Your task to perform on an android device: Do I have any events this weekend? Image 0: 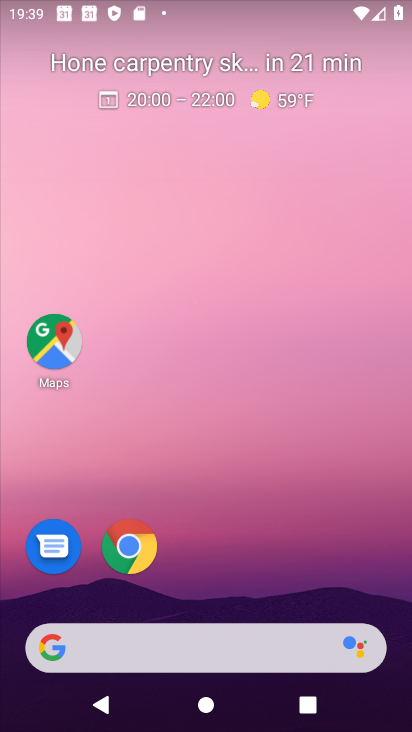
Step 0: drag from (280, 550) to (255, 308)
Your task to perform on an android device: Do I have any events this weekend? Image 1: 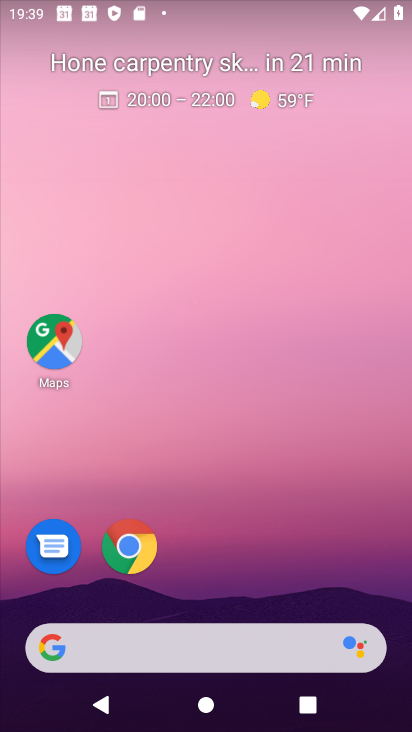
Step 1: drag from (208, 511) to (192, 150)
Your task to perform on an android device: Do I have any events this weekend? Image 2: 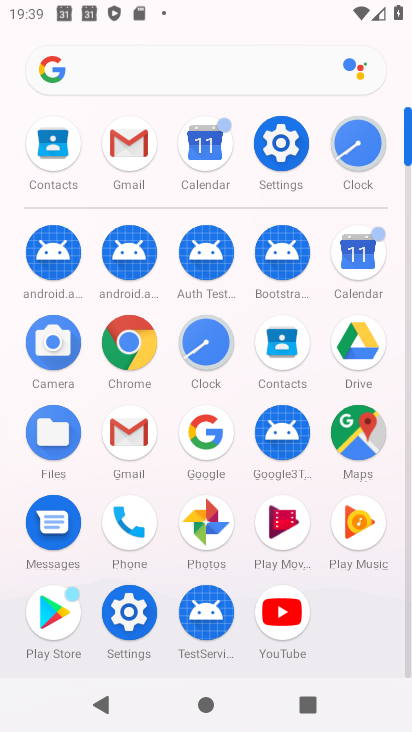
Step 2: click (351, 266)
Your task to perform on an android device: Do I have any events this weekend? Image 3: 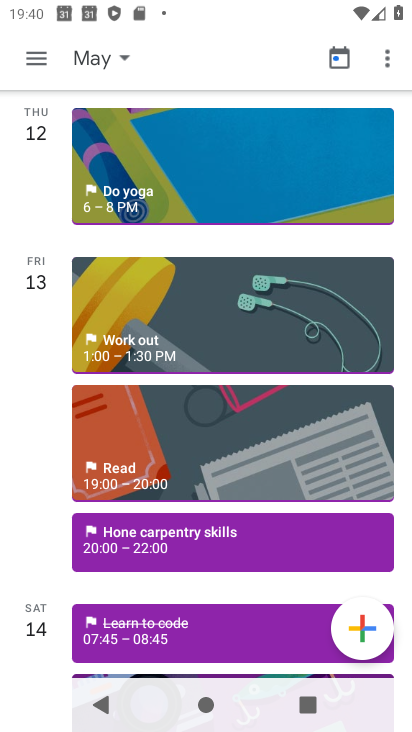
Step 3: click (41, 54)
Your task to perform on an android device: Do I have any events this weekend? Image 4: 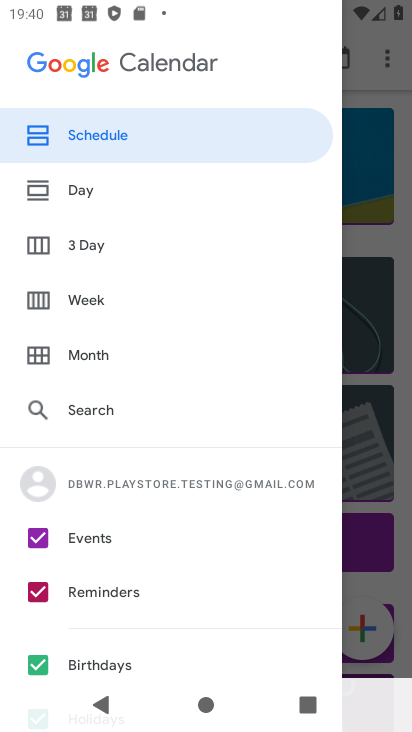
Step 4: click (95, 246)
Your task to perform on an android device: Do I have any events this weekend? Image 5: 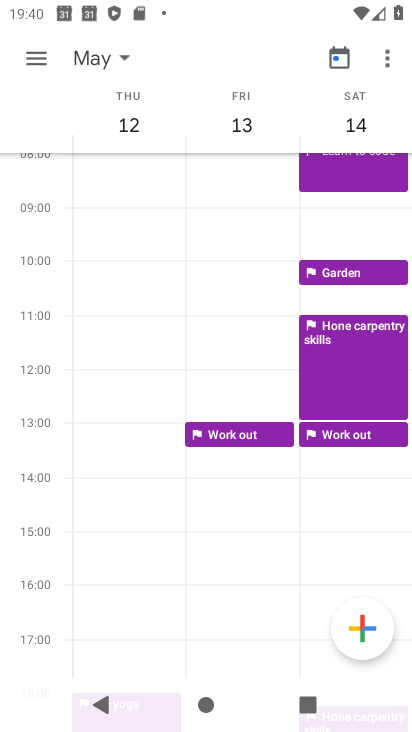
Step 5: click (108, 59)
Your task to perform on an android device: Do I have any events this weekend? Image 6: 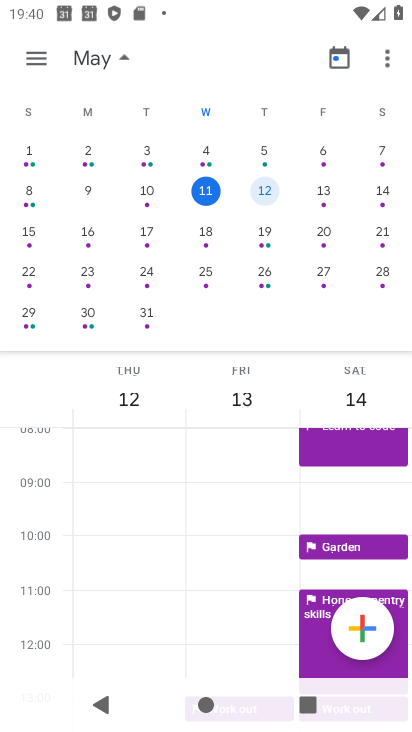
Step 6: click (322, 186)
Your task to perform on an android device: Do I have any events this weekend? Image 7: 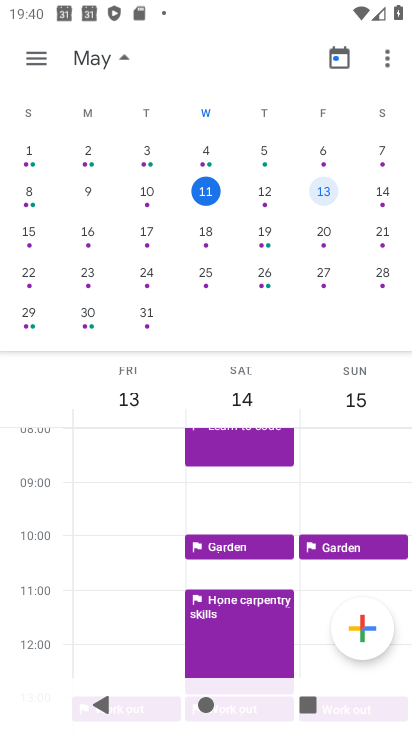
Step 7: click (114, 48)
Your task to perform on an android device: Do I have any events this weekend? Image 8: 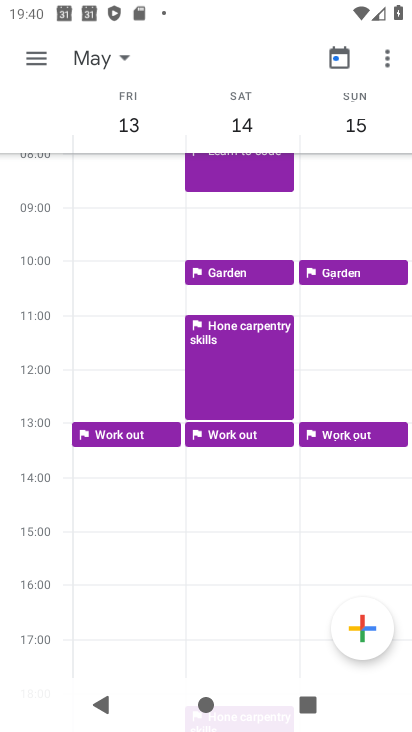
Step 8: task complete